Your task to perform on an android device: turn smart compose on in the gmail app Image 0: 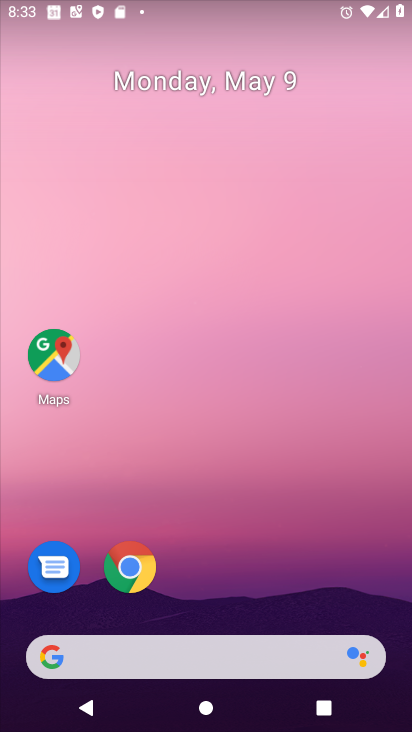
Step 0: drag from (352, 583) to (319, 189)
Your task to perform on an android device: turn smart compose on in the gmail app Image 1: 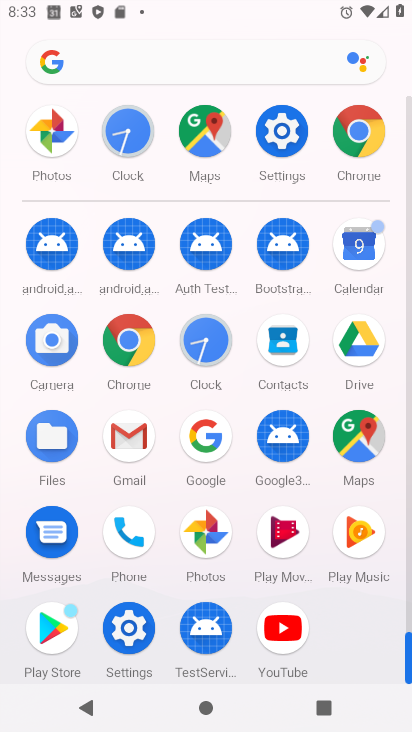
Step 1: click (127, 454)
Your task to perform on an android device: turn smart compose on in the gmail app Image 2: 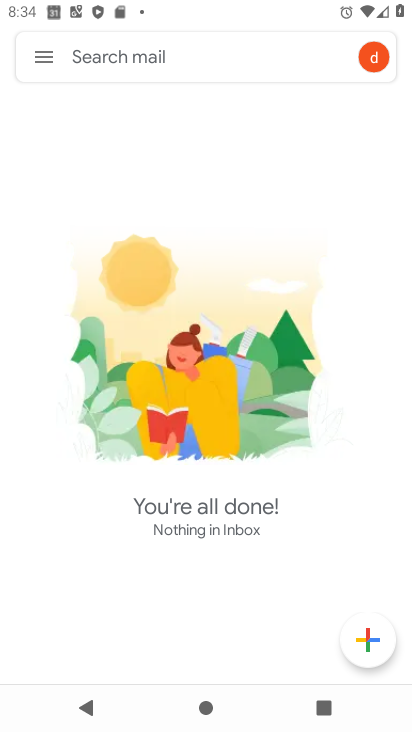
Step 2: click (35, 58)
Your task to perform on an android device: turn smart compose on in the gmail app Image 3: 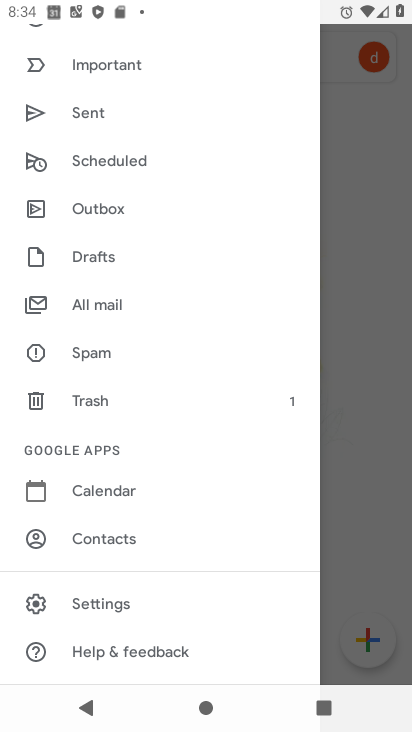
Step 3: click (125, 597)
Your task to perform on an android device: turn smart compose on in the gmail app Image 4: 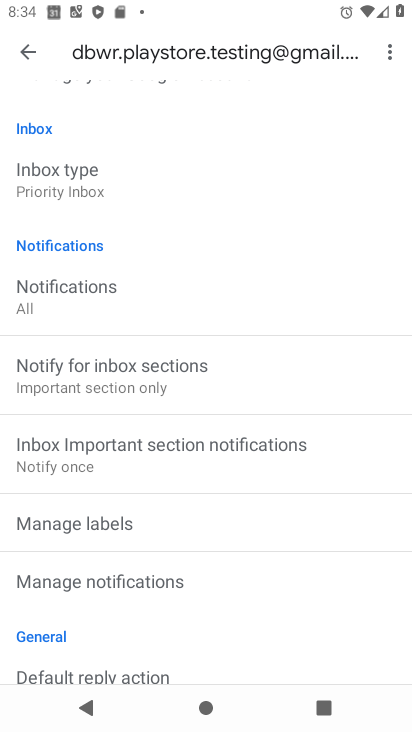
Step 4: task complete